Your task to perform on an android device: What is the recent news? Image 0: 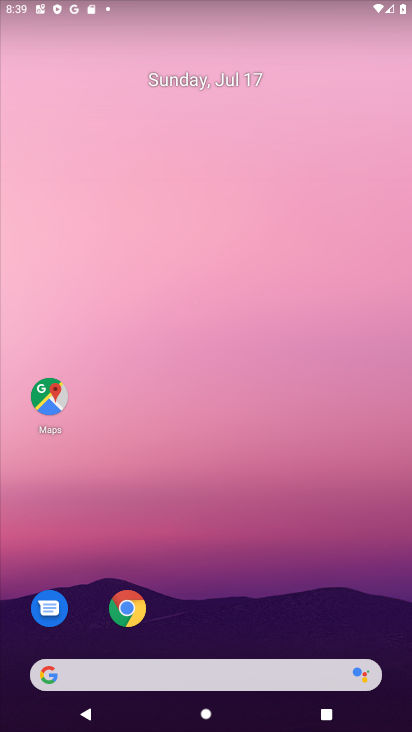
Step 0: drag from (193, 656) to (212, 252)
Your task to perform on an android device: What is the recent news? Image 1: 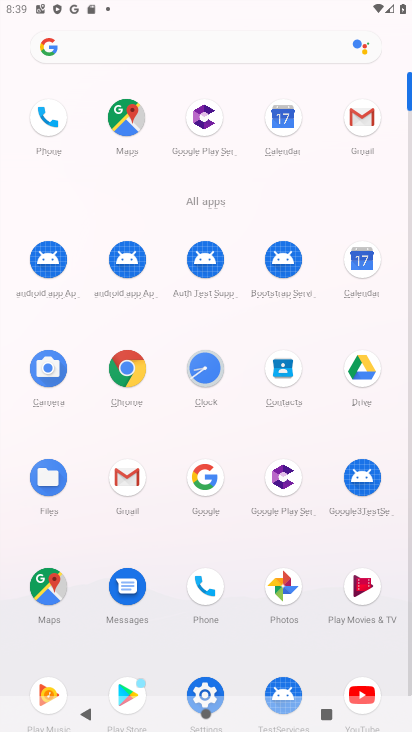
Step 1: click (208, 483)
Your task to perform on an android device: What is the recent news? Image 2: 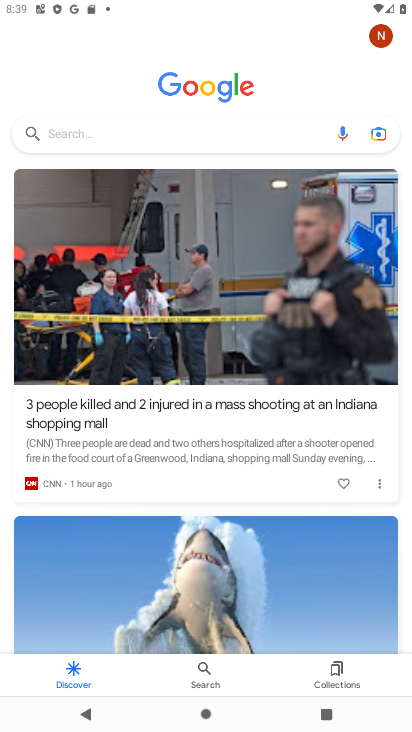
Step 2: click (169, 135)
Your task to perform on an android device: What is the recent news? Image 3: 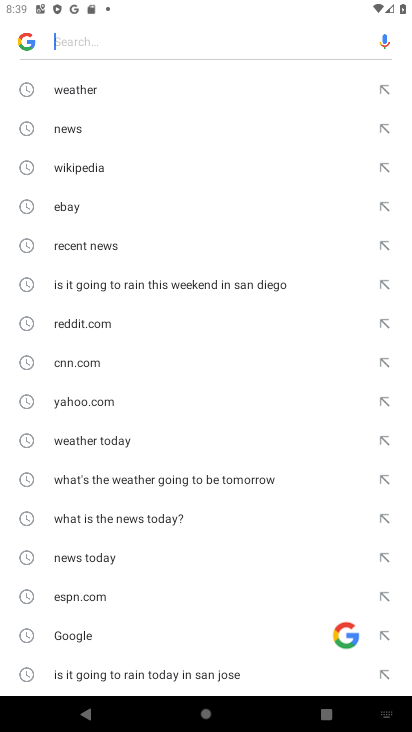
Step 3: click (79, 250)
Your task to perform on an android device: What is the recent news? Image 4: 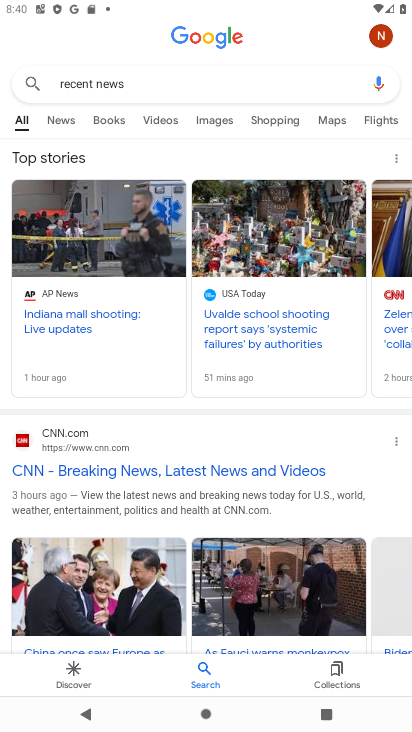
Step 4: task complete